Your task to perform on an android device: Open battery settings Image 0: 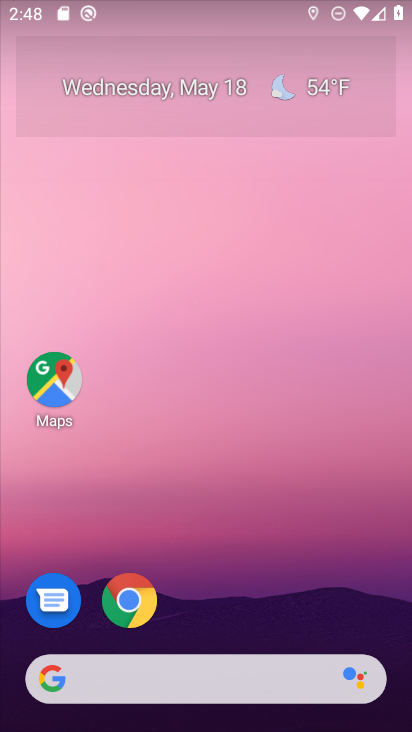
Step 0: drag from (207, 619) to (307, 148)
Your task to perform on an android device: Open battery settings Image 1: 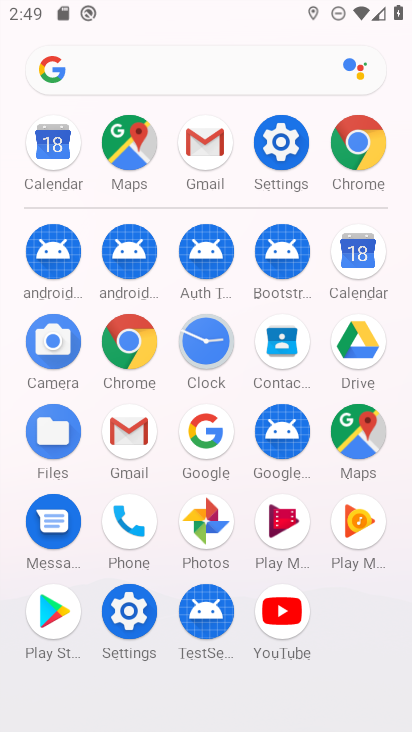
Step 1: click (290, 155)
Your task to perform on an android device: Open battery settings Image 2: 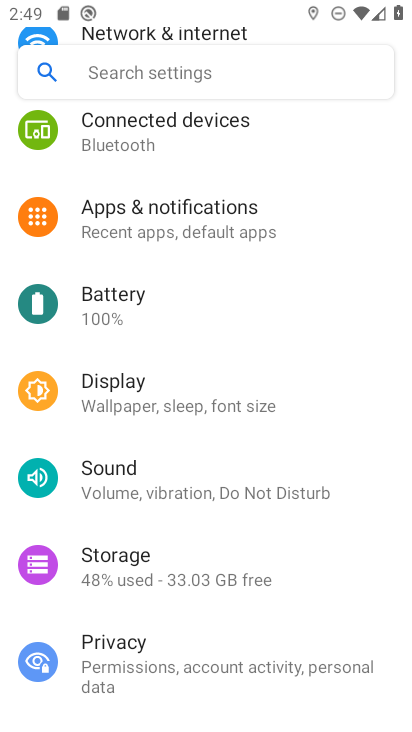
Step 2: click (150, 312)
Your task to perform on an android device: Open battery settings Image 3: 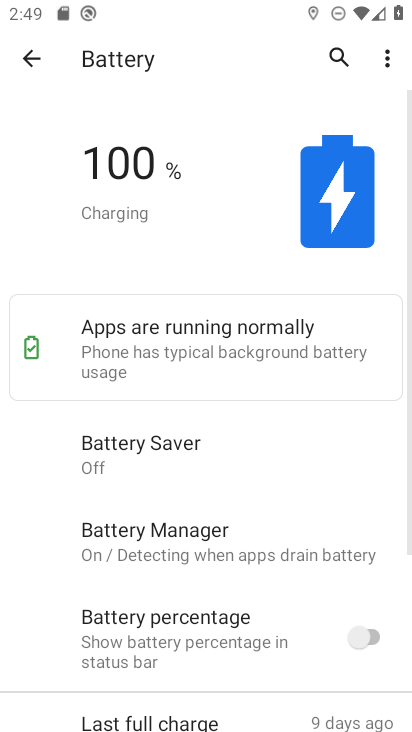
Step 3: task complete